Your task to perform on an android device: Turn on the flashlight Image 0: 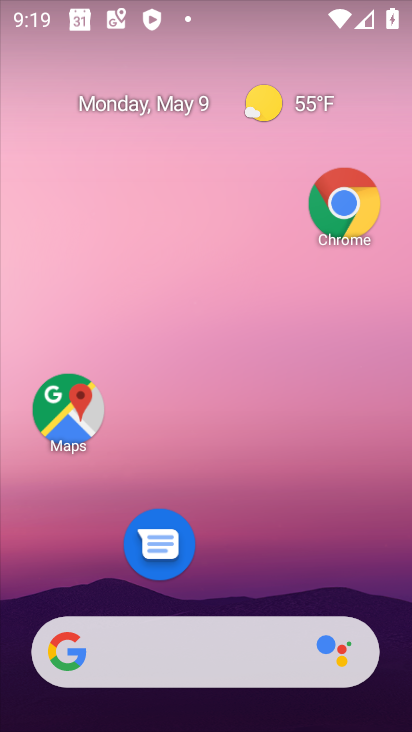
Step 0: drag from (229, 572) to (213, 235)
Your task to perform on an android device: Turn on the flashlight Image 1: 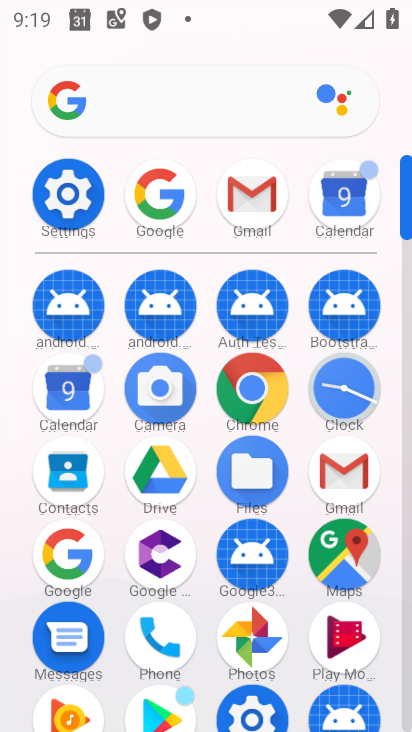
Step 1: click (66, 199)
Your task to perform on an android device: Turn on the flashlight Image 2: 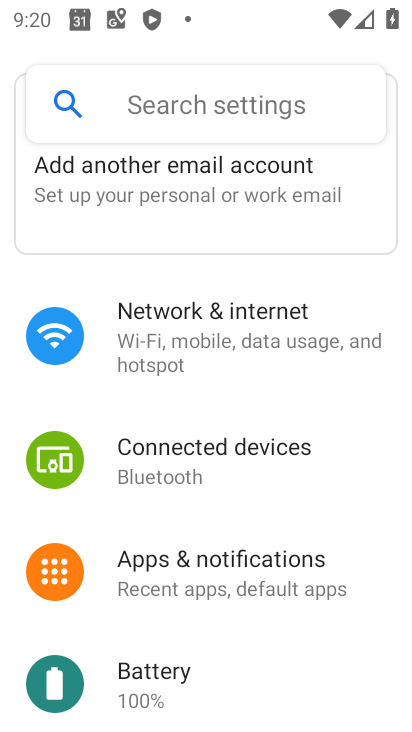
Step 2: click (215, 345)
Your task to perform on an android device: Turn on the flashlight Image 3: 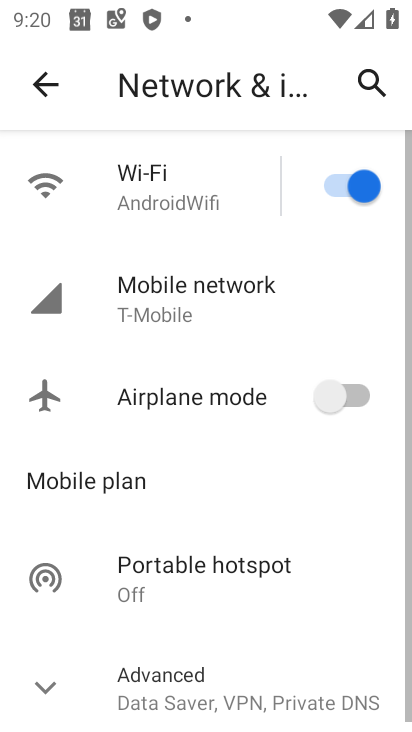
Step 3: task complete